Your task to perform on an android device: change the clock display to analog Image 0: 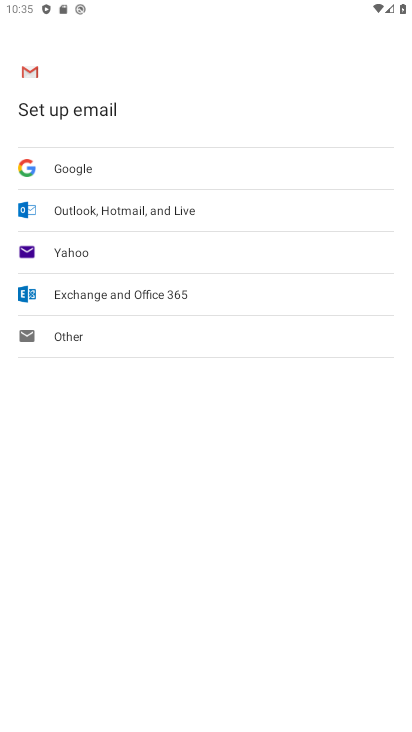
Step 0: press home button
Your task to perform on an android device: change the clock display to analog Image 1: 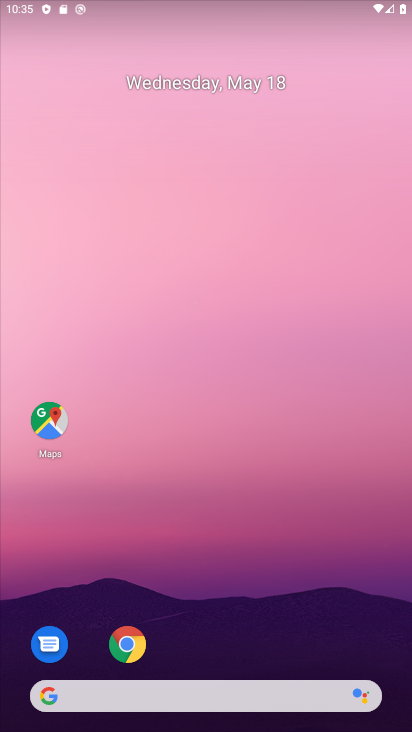
Step 1: drag from (336, 625) to (336, 59)
Your task to perform on an android device: change the clock display to analog Image 2: 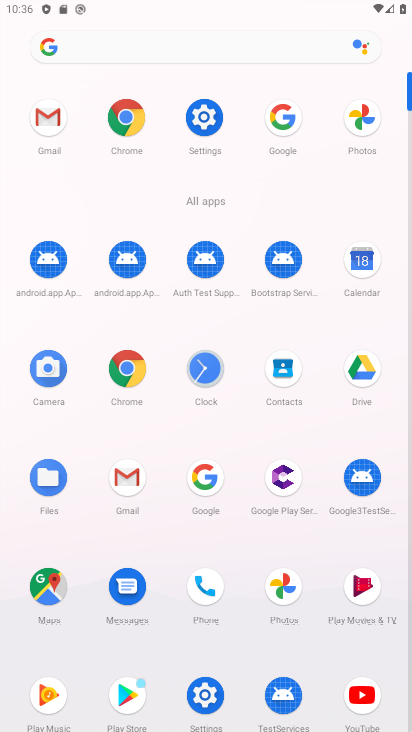
Step 2: click (215, 378)
Your task to perform on an android device: change the clock display to analog Image 3: 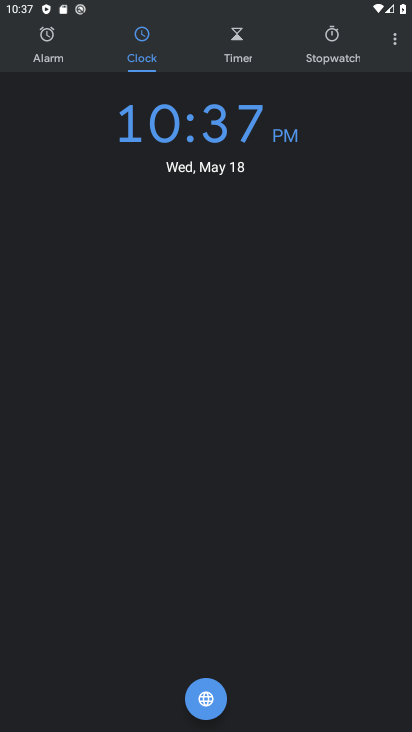
Step 3: click (392, 43)
Your task to perform on an android device: change the clock display to analog Image 4: 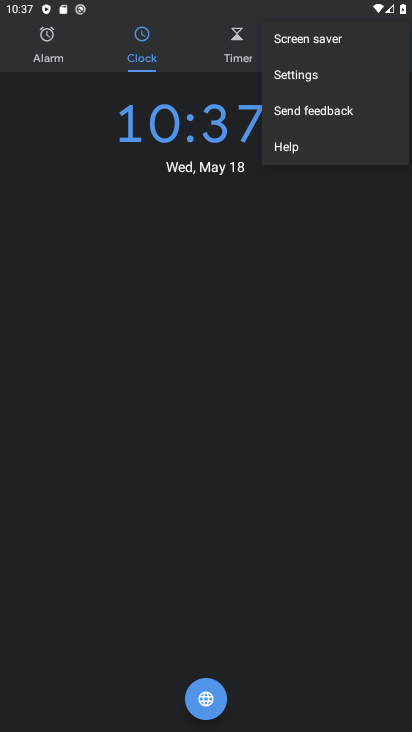
Step 4: click (339, 84)
Your task to perform on an android device: change the clock display to analog Image 5: 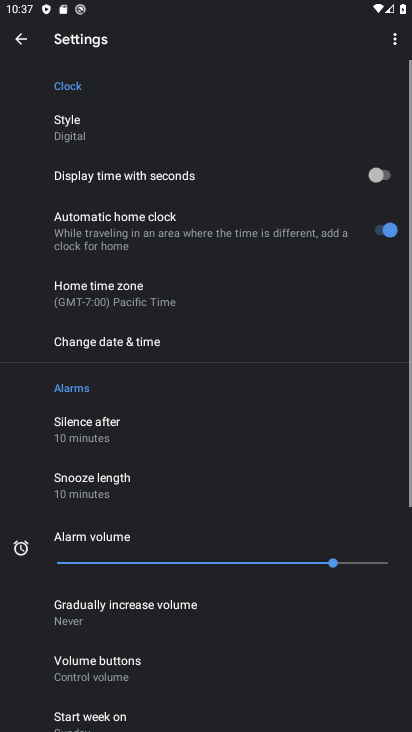
Step 5: click (101, 139)
Your task to perform on an android device: change the clock display to analog Image 6: 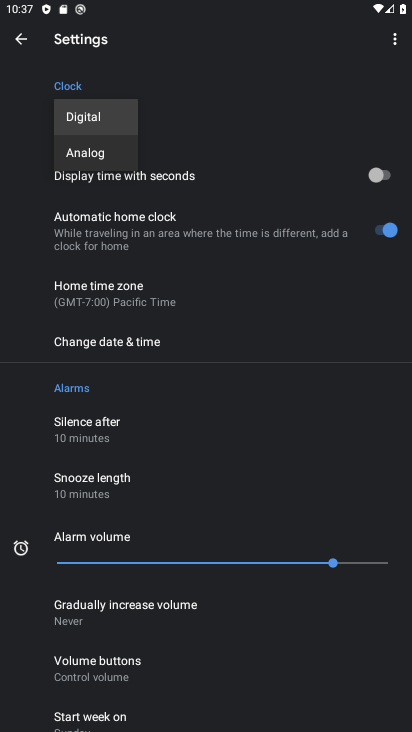
Step 6: click (121, 164)
Your task to perform on an android device: change the clock display to analog Image 7: 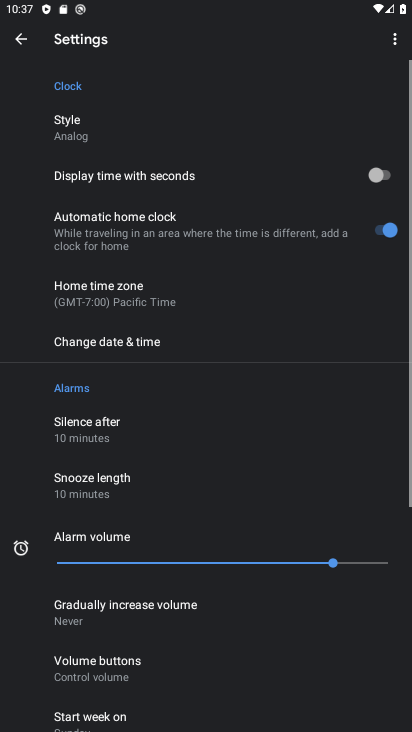
Step 7: task complete